Your task to perform on an android device: turn notification dots on Image 0: 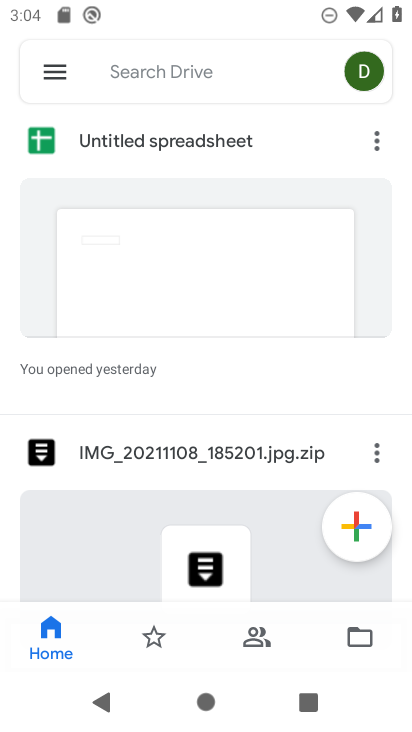
Step 0: press back button
Your task to perform on an android device: turn notification dots on Image 1: 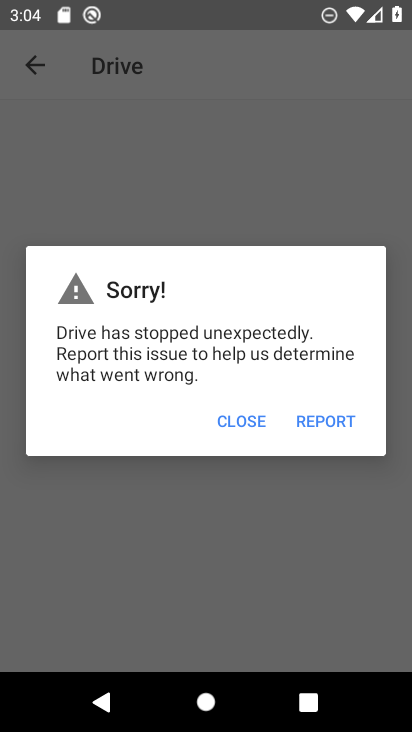
Step 1: press home button
Your task to perform on an android device: turn notification dots on Image 2: 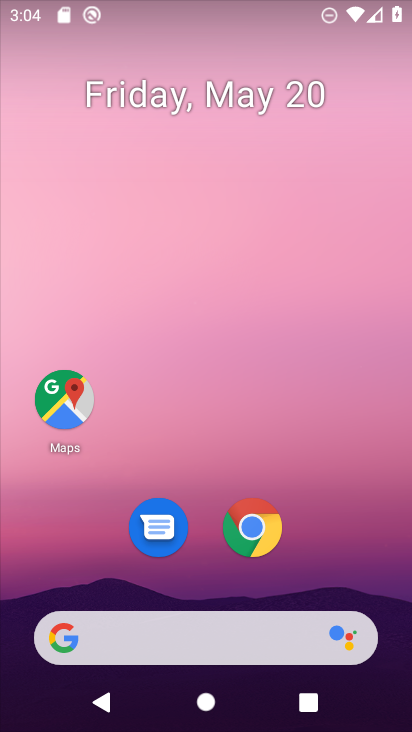
Step 2: drag from (199, 585) to (296, 22)
Your task to perform on an android device: turn notification dots on Image 3: 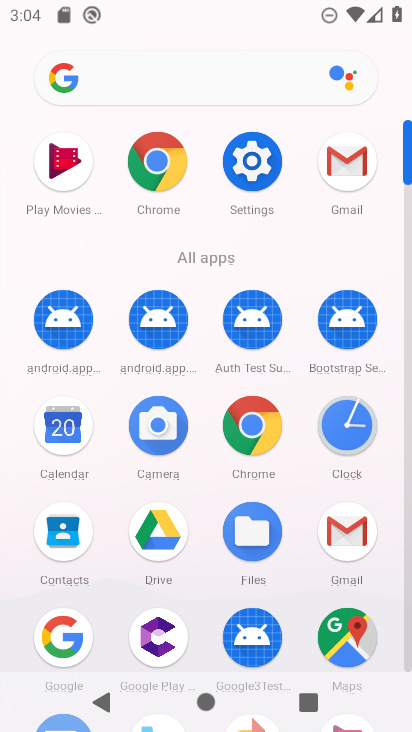
Step 3: click (257, 154)
Your task to perform on an android device: turn notification dots on Image 4: 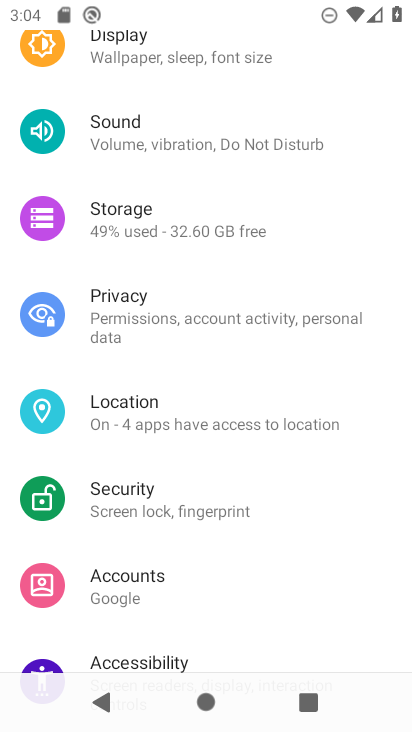
Step 4: drag from (260, 153) to (223, 393)
Your task to perform on an android device: turn notification dots on Image 5: 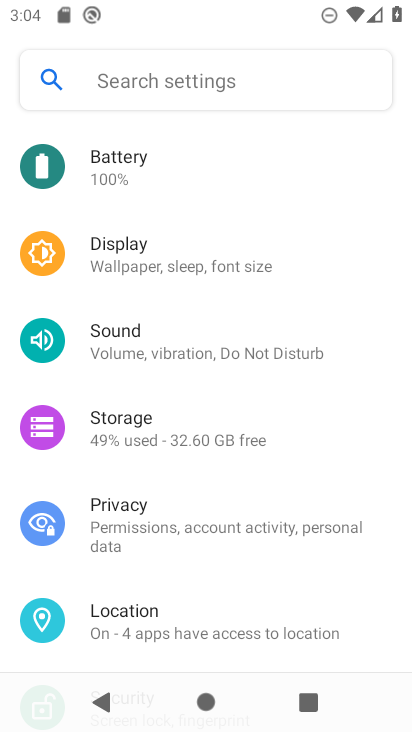
Step 5: drag from (192, 607) to (275, 92)
Your task to perform on an android device: turn notification dots on Image 6: 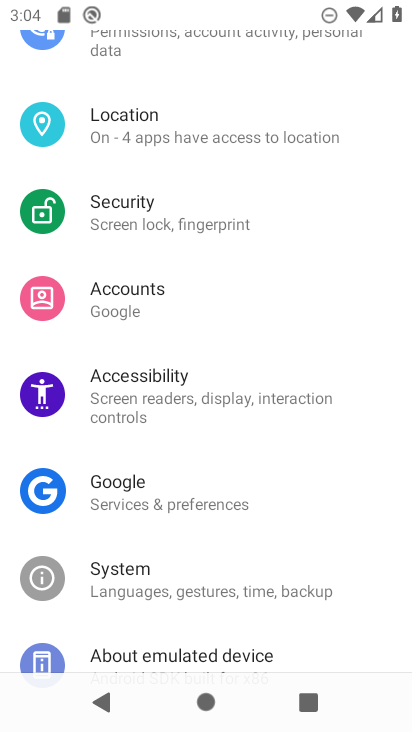
Step 6: drag from (171, 99) to (163, 657)
Your task to perform on an android device: turn notification dots on Image 7: 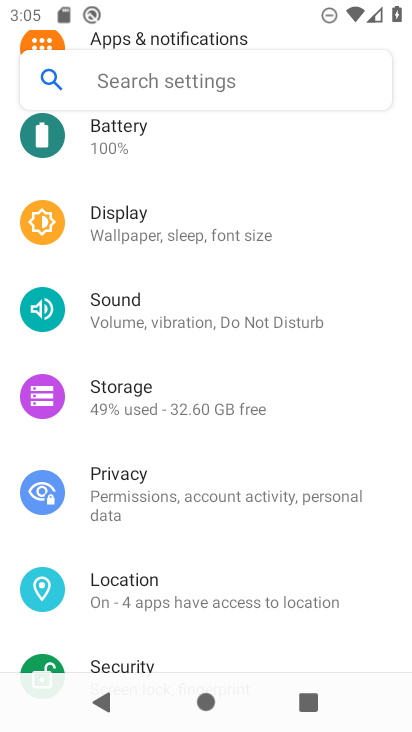
Step 7: drag from (225, 233) to (209, 646)
Your task to perform on an android device: turn notification dots on Image 8: 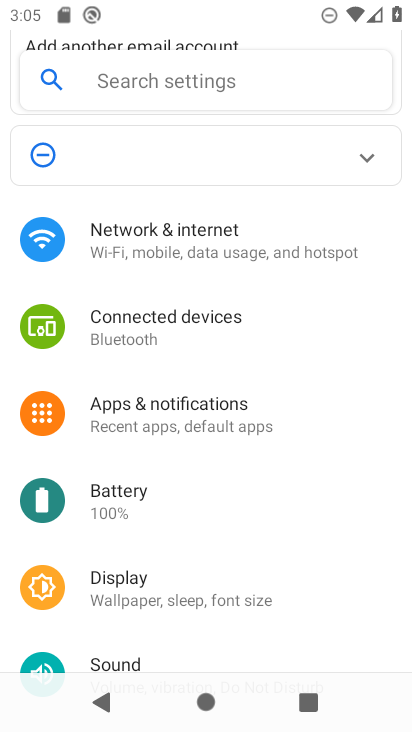
Step 8: click (185, 412)
Your task to perform on an android device: turn notification dots on Image 9: 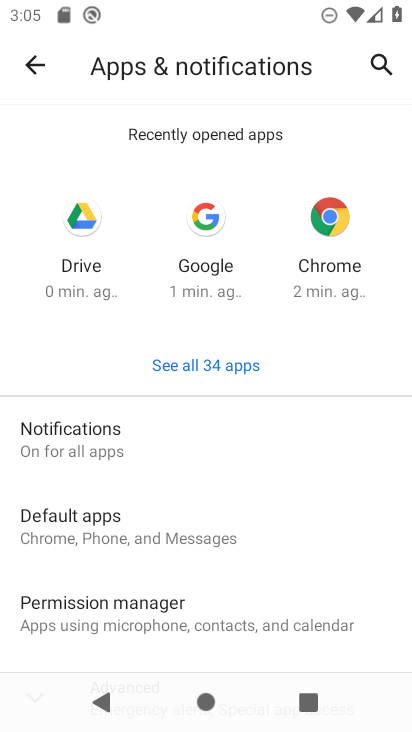
Step 9: click (138, 436)
Your task to perform on an android device: turn notification dots on Image 10: 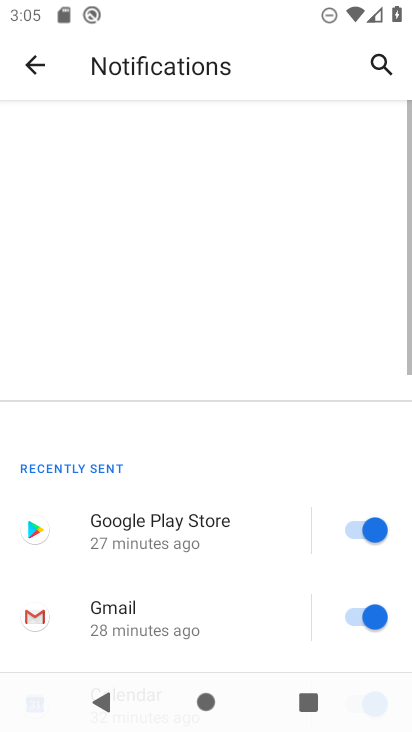
Step 10: drag from (199, 618) to (249, 99)
Your task to perform on an android device: turn notification dots on Image 11: 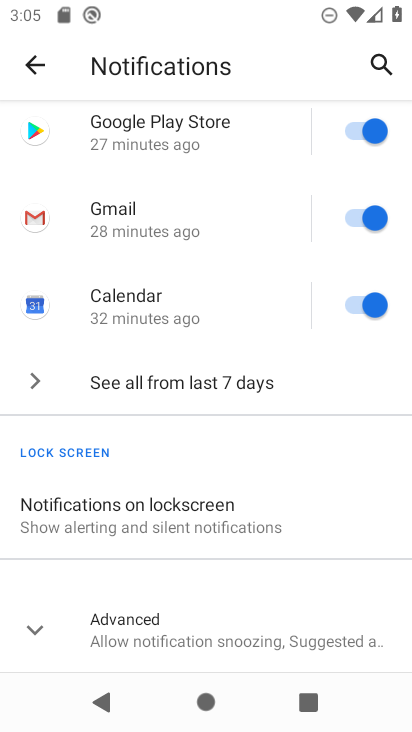
Step 11: click (179, 625)
Your task to perform on an android device: turn notification dots on Image 12: 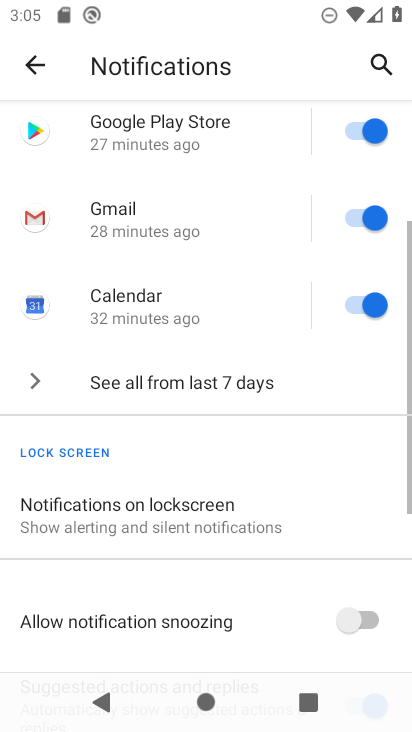
Step 12: task complete